Your task to perform on an android device: Open the web browser Image 0: 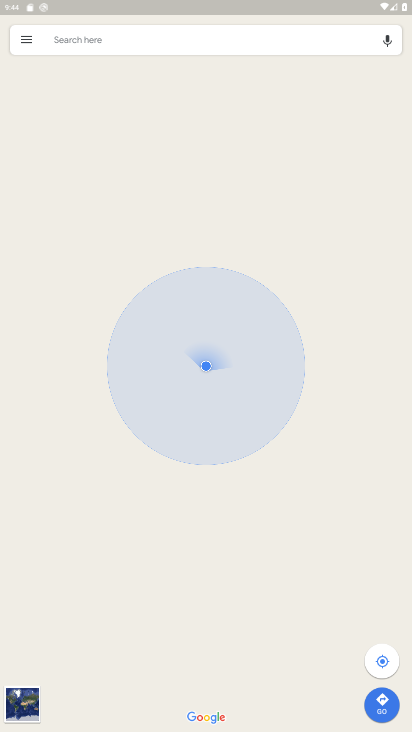
Step 0: press home button
Your task to perform on an android device: Open the web browser Image 1: 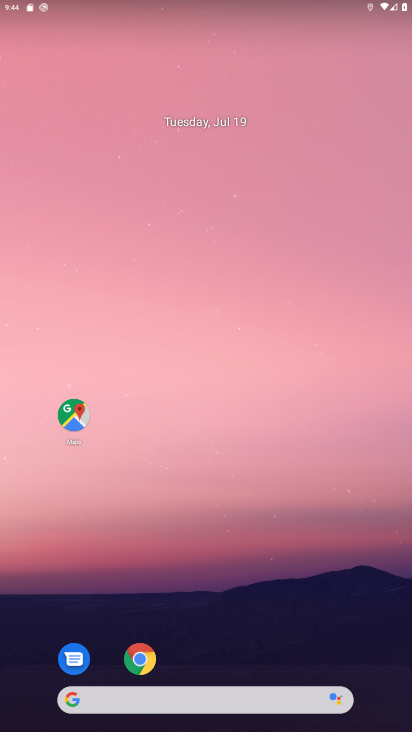
Step 1: drag from (170, 690) to (220, 104)
Your task to perform on an android device: Open the web browser Image 2: 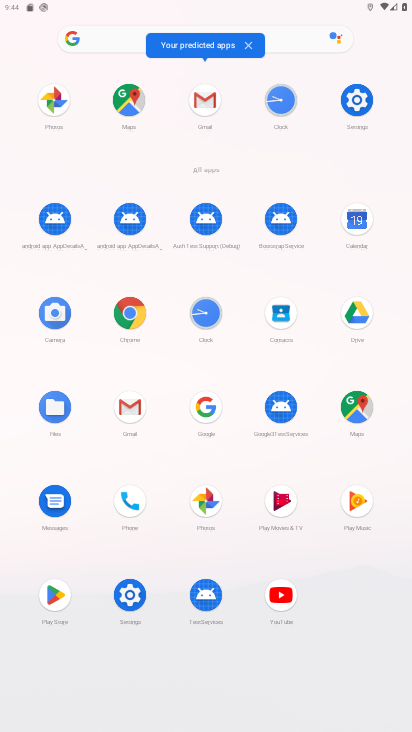
Step 2: click (208, 405)
Your task to perform on an android device: Open the web browser Image 3: 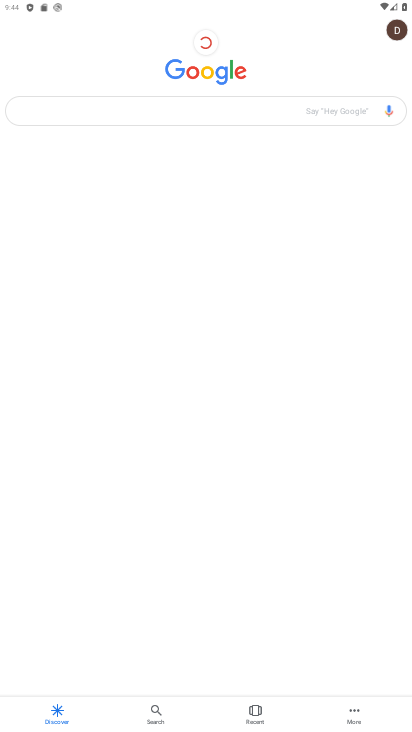
Step 3: task complete